Your task to perform on an android device: Open eBay Image 0: 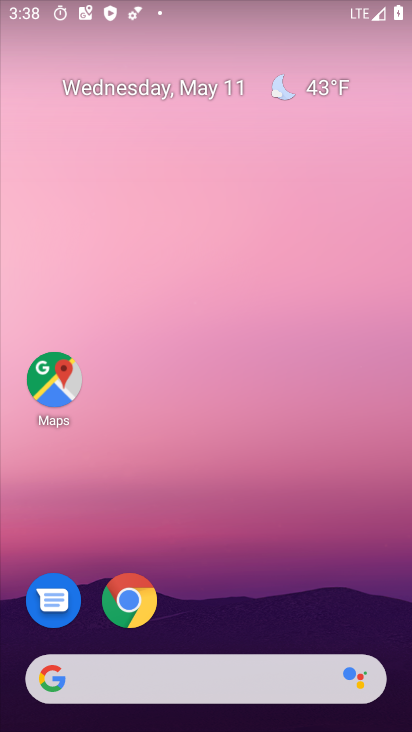
Step 0: click (134, 602)
Your task to perform on an android device: Open eBay Image 1: 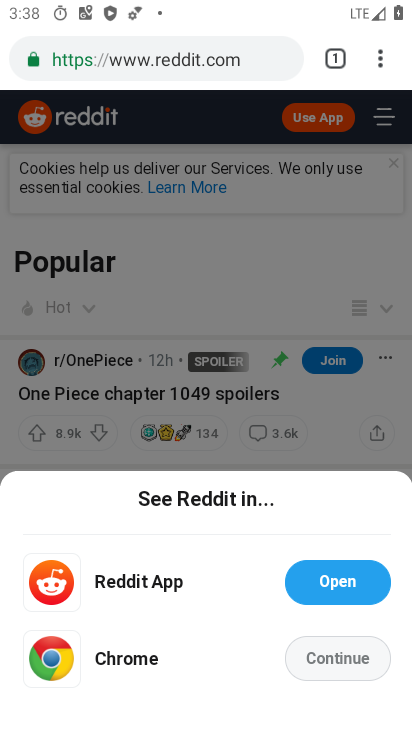
Step 1: click (115, 59)
Your task to perform on an android device: Open eBay Image 2: 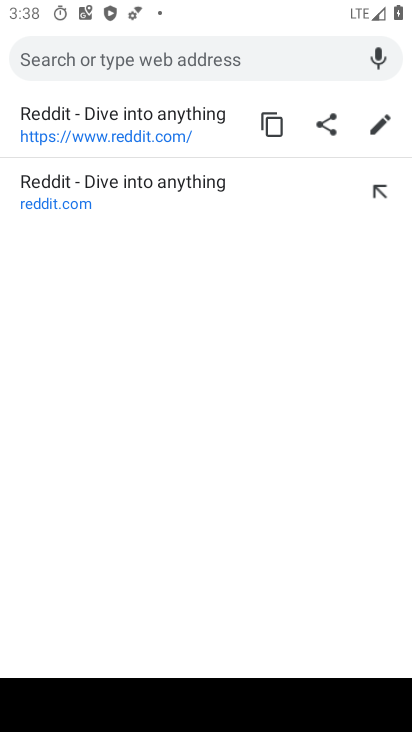
Step 2: type "ebay"
Your task to perform on an android device: Open eBay Image 3: 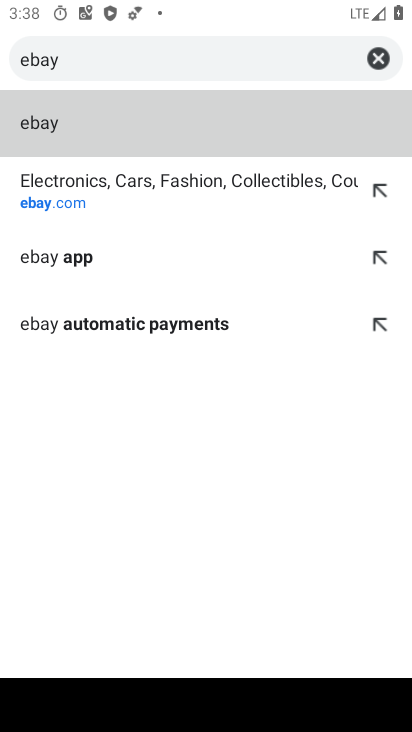
Step 3: click (36, 129)
Your task to perform on an android device: Open eBay Image 4: 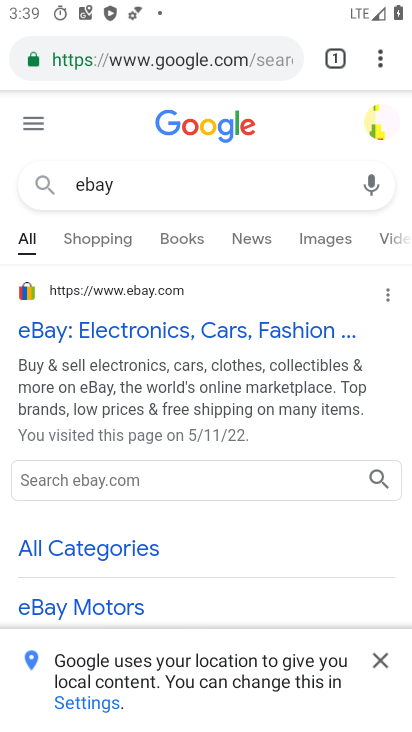
Step 4: click (36, 334)
Your task to perform on an android device: Open eBay Image 5: 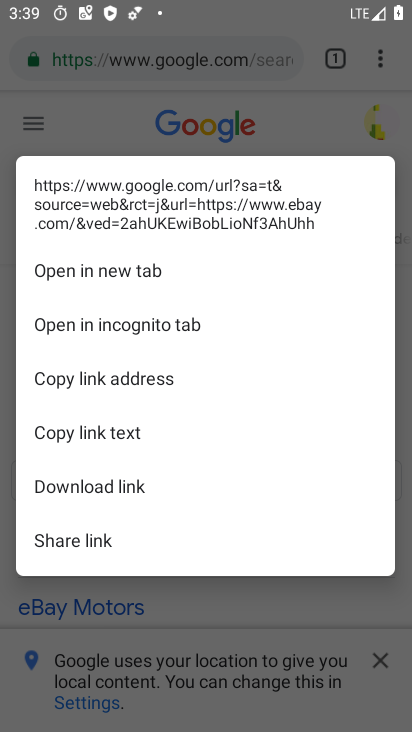
Step 5: click (403, 607)
Your task to perform on an android device: Open eBay Image 6: 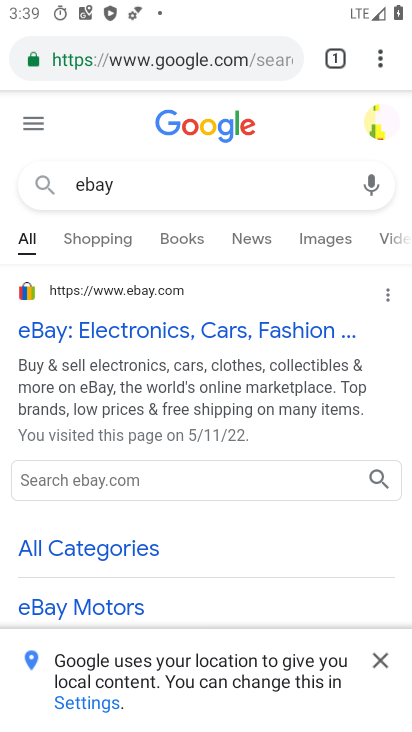
Step 6: click (54, 342)
Your task to perform on an android device: Open eBay Image 7: 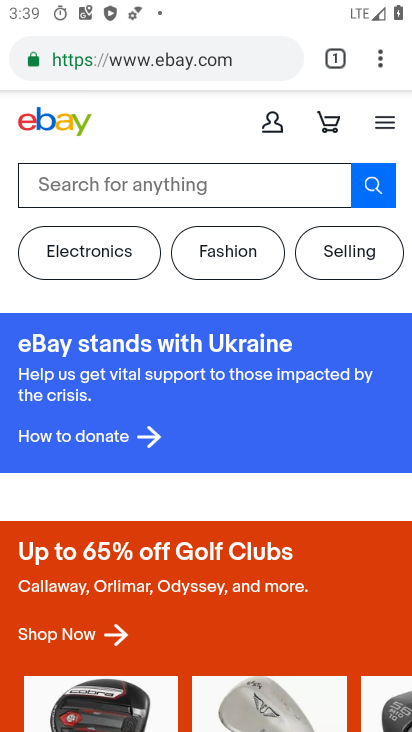
Step 7: task complete